Your task to perform on an android device: add a label to a message in the gmail app Image 0: 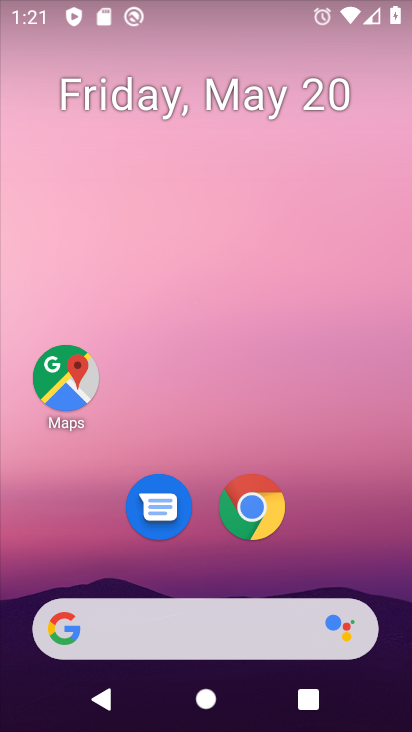
Step 0: drag from (395, 592) to (273, 104)
Your task to perform on an android device: add a label to a message in the gmail app Image 1: 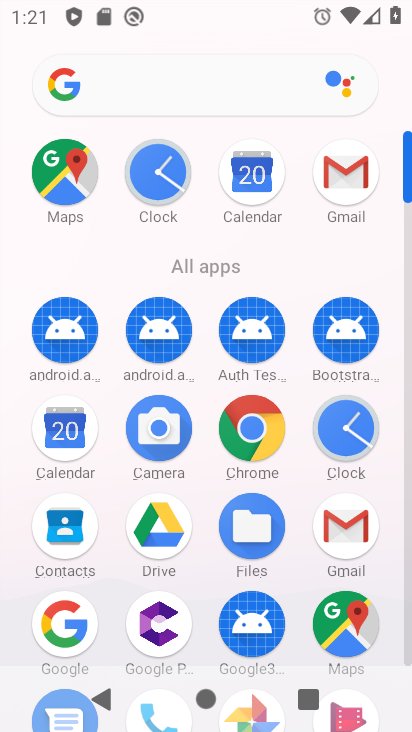
Step 1: click (339, 186)
Your task to perform on an android device: add a label to a message in the gmail app Image 2: 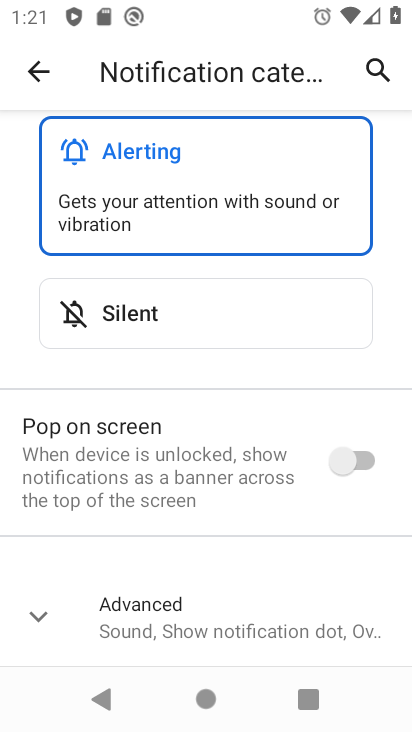
Step 2: click (36, 75)
Your task to perform on an android device: add a label to a message in the gmail app Image 3: 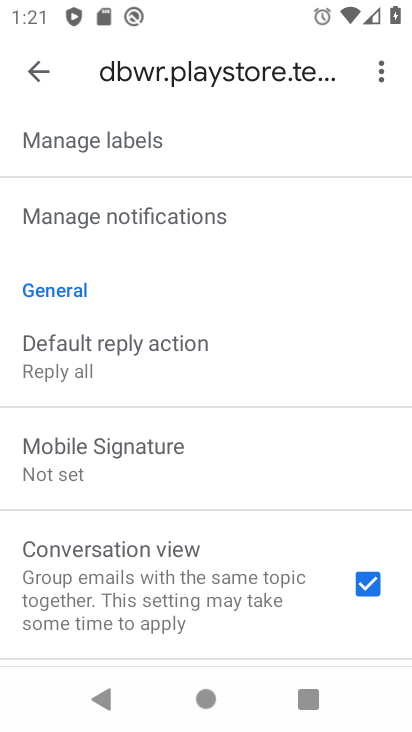
Step 3: click (36, 75)
Your task to perform on an android device: add a label to a message in the gmail app Image 4: 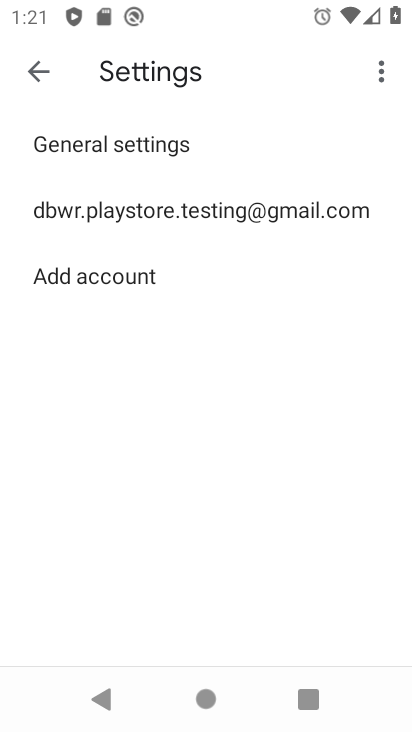
Step 4: click (36, 75)
Your task to perform on an android device: add a label to a message in the gmail app Image 5: 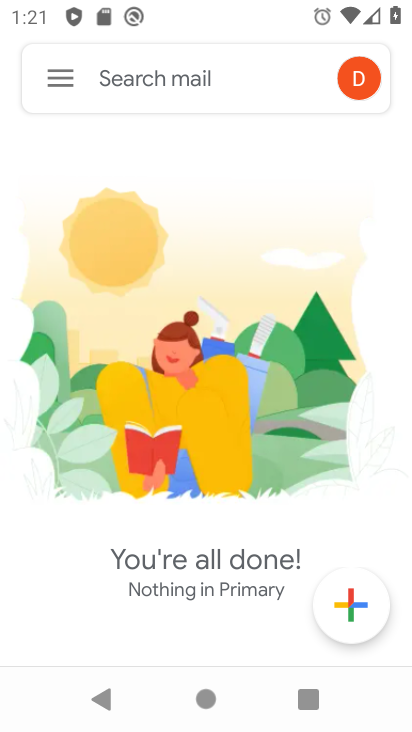
Step 5: task complete